Your task to perform on an android device: refresh tabs in the chrome app Image 0: 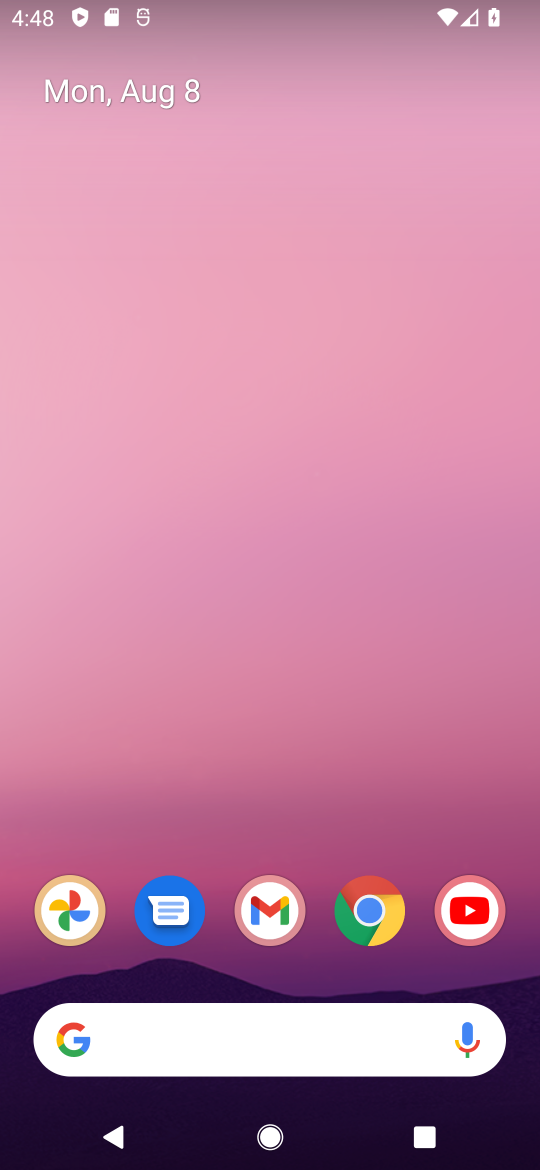
Step 0: click (370, 907)
Your task to perform on an android device: refresh tabs in the chrome app Image 1: 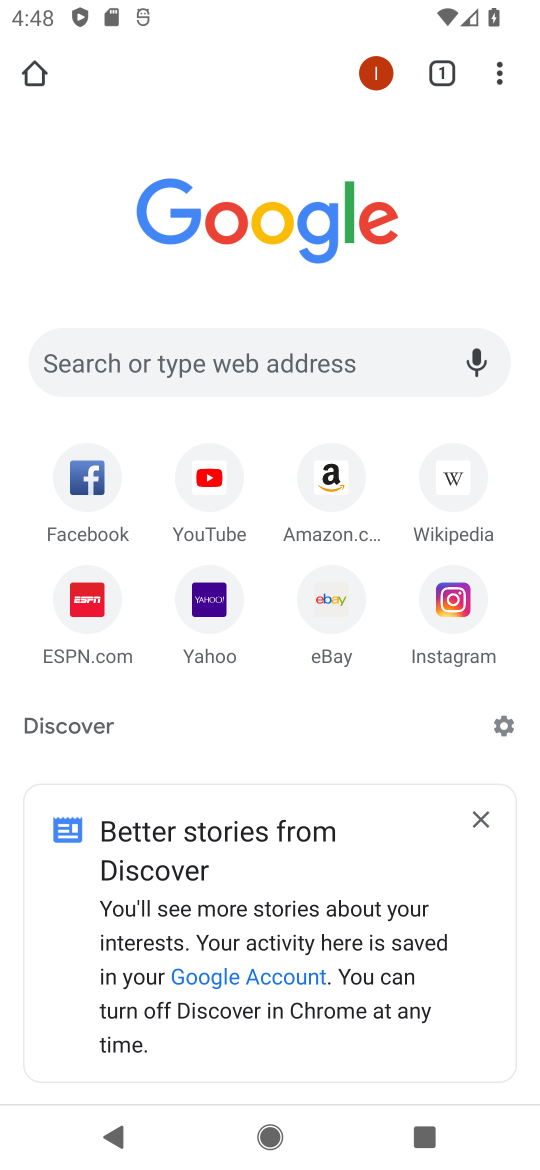
Step 1: click (500, 74)
Your task to perform on an android device: refresh tabs in the chrome app Image 2: 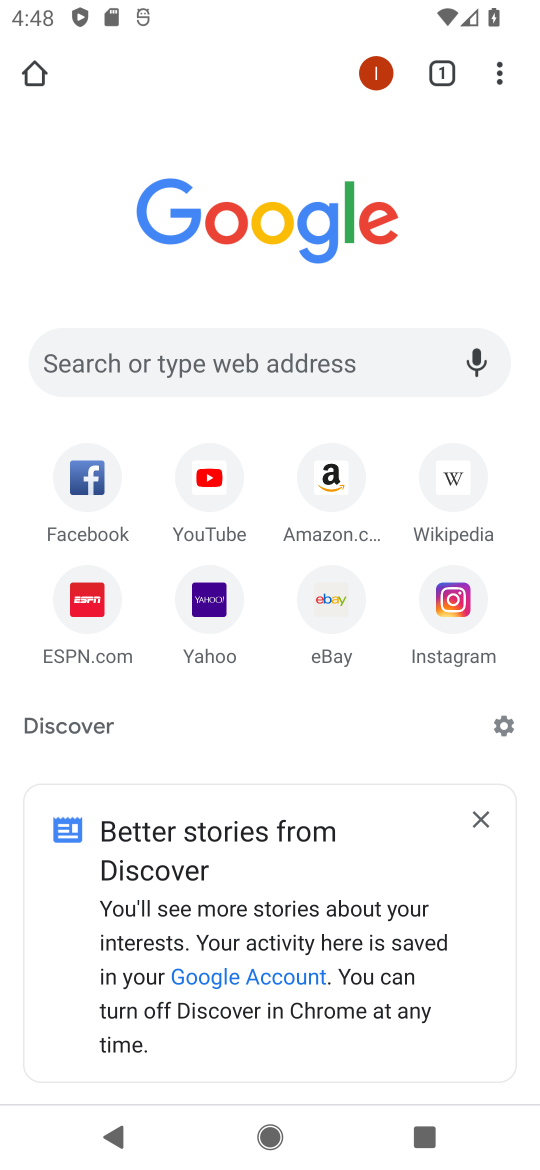
Step 2: click (504, 75)
Your task to perform on an android device: refresh tabs in the chrome app Image 3: 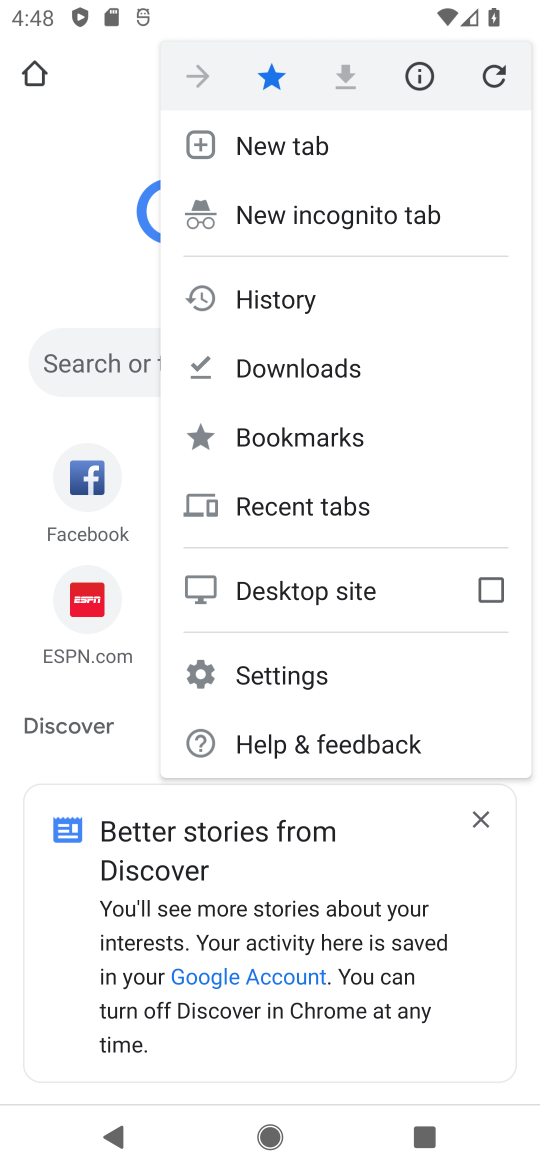
Step 3: click (498, 75)
Your task to perform on an android device: refresh tabs in the chrome app Image 4: 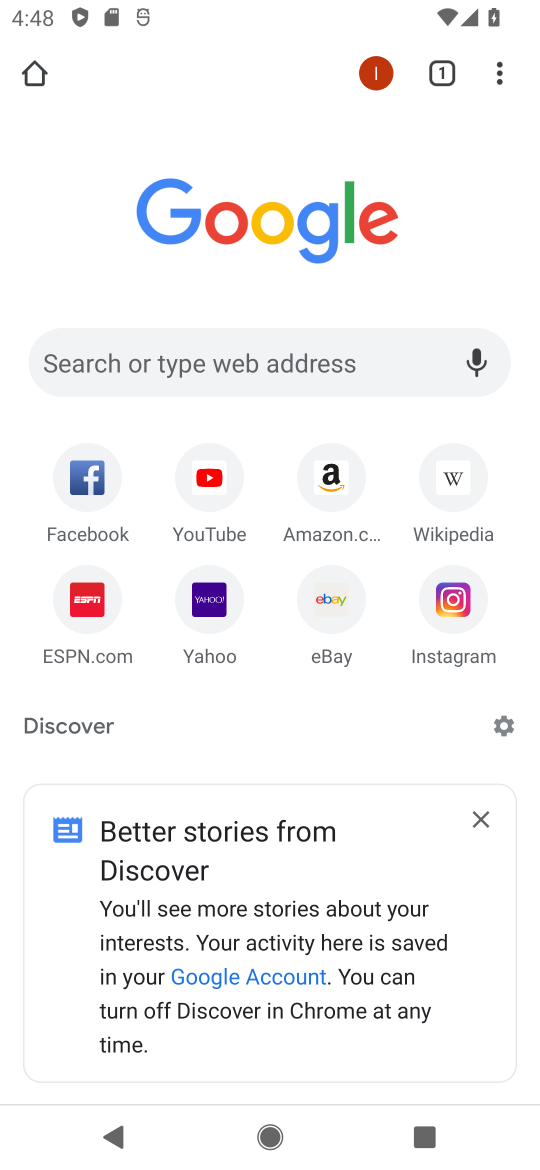
Step 4: task complete